Your task to perform on an android device: Go to Google Image 0: 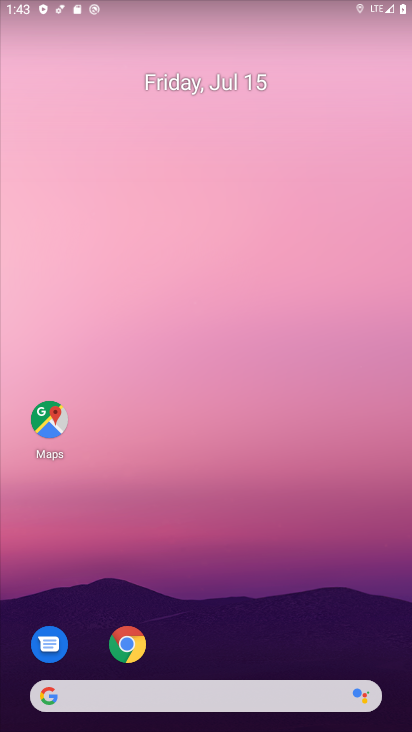
Step 0: drag from (390, 665) to (2, 24)
Your task to perform on an android device: Go to Google Image 1: 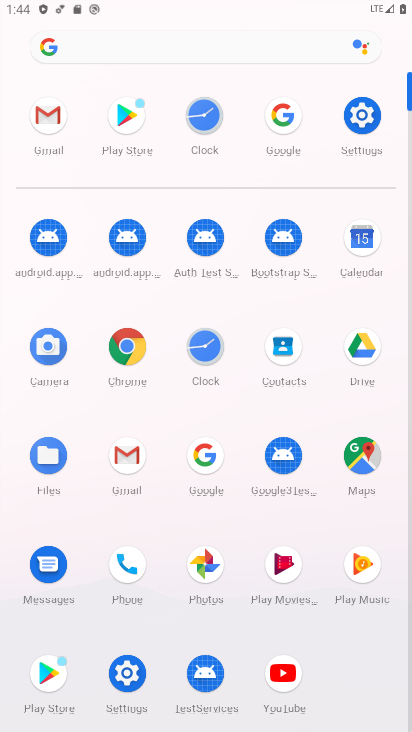
Step 1: click (187, 459)
Your task to perform on an android device: Go to Google Image 2: 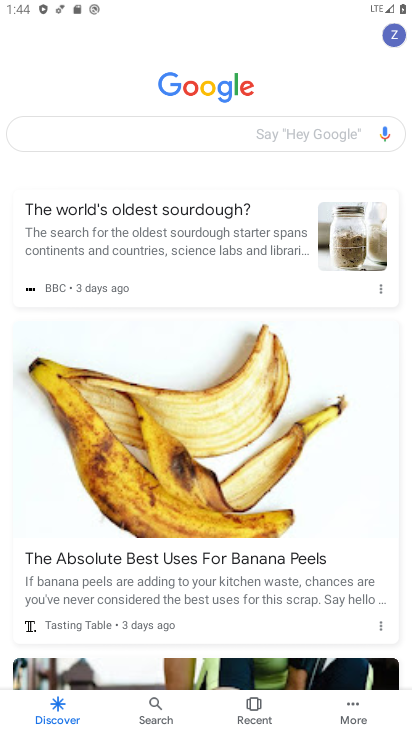
Step 2: task complete